Your task to perform on an android device: Show me the alarms in the clock app Image 0: 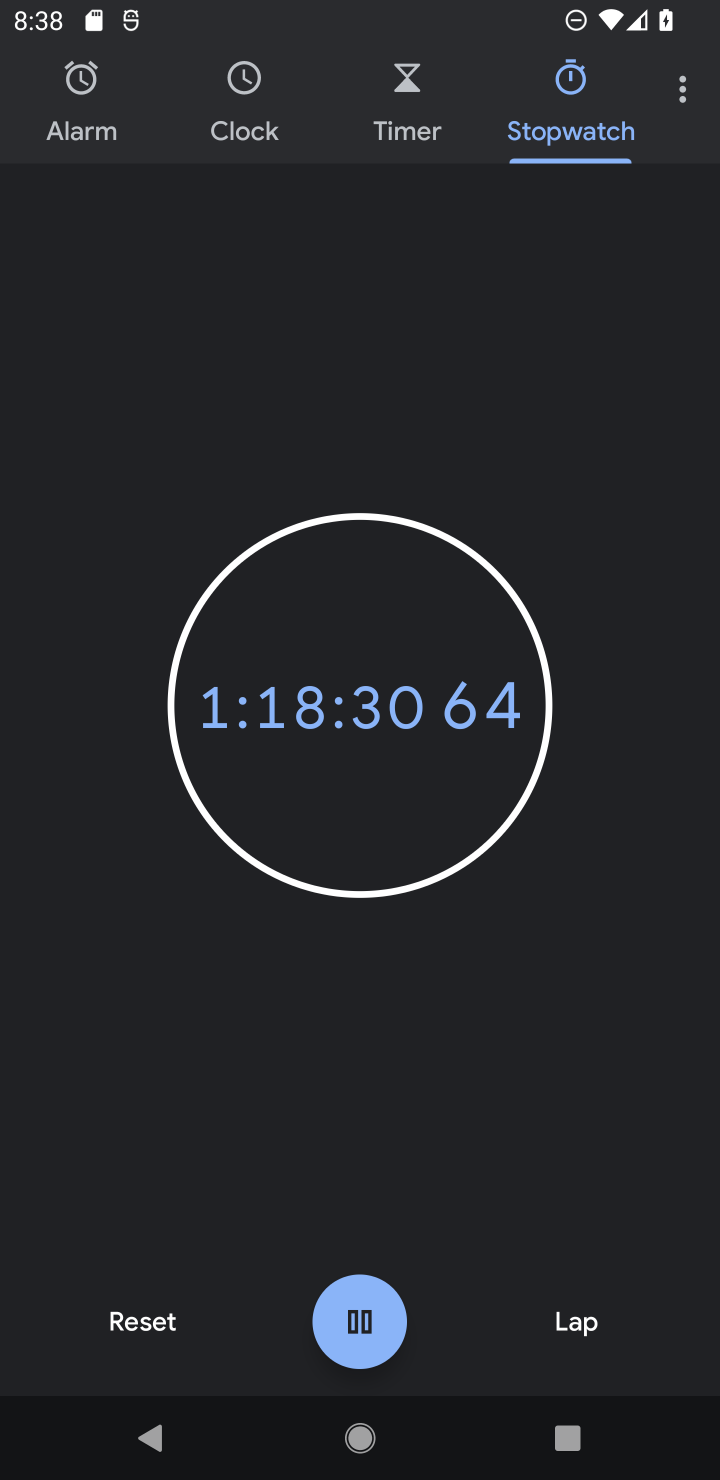
Step 0: press home button
Your task to perform on an android device: Show me the alarms in the clock app Image 1: 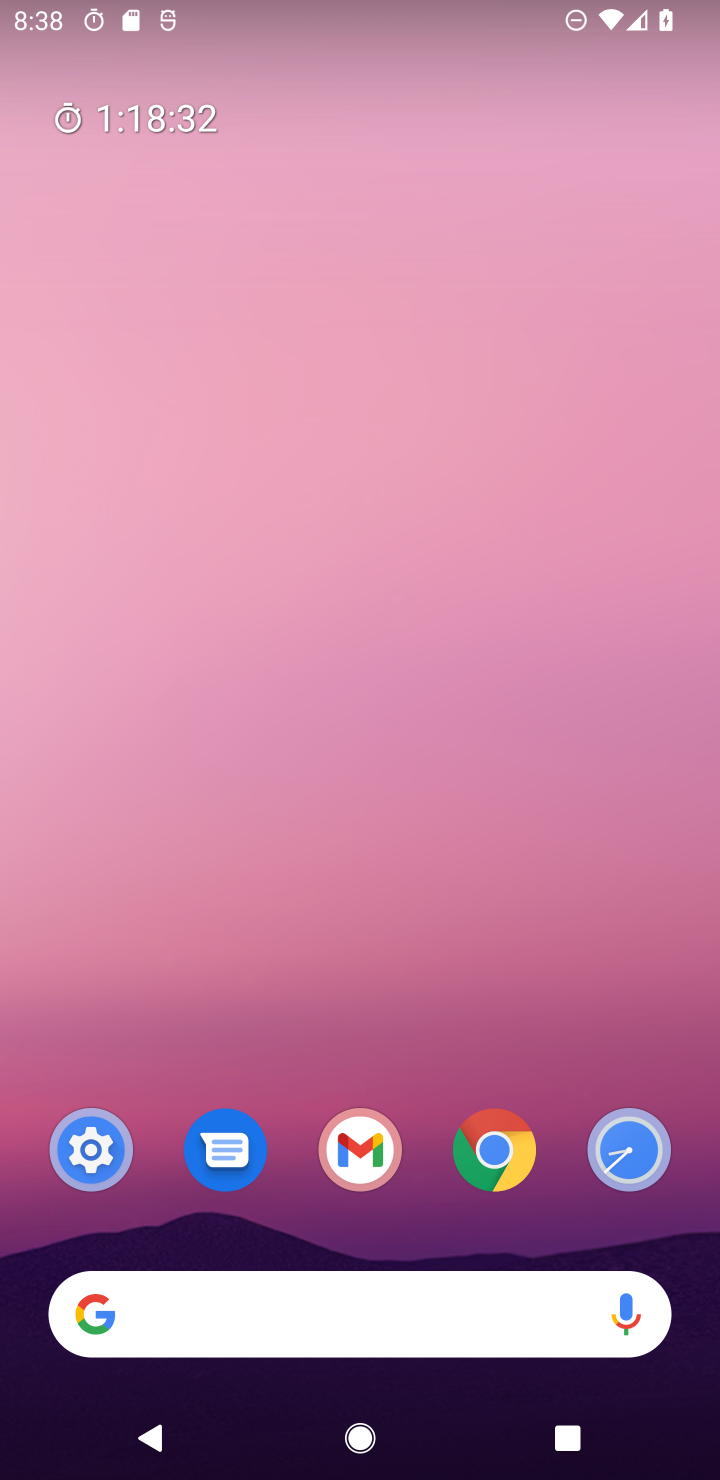
Step 1: drag from (380, 1318) to (577, 15)
Your task to perform on an android device: Show me the alarms in the clock app Image 2: 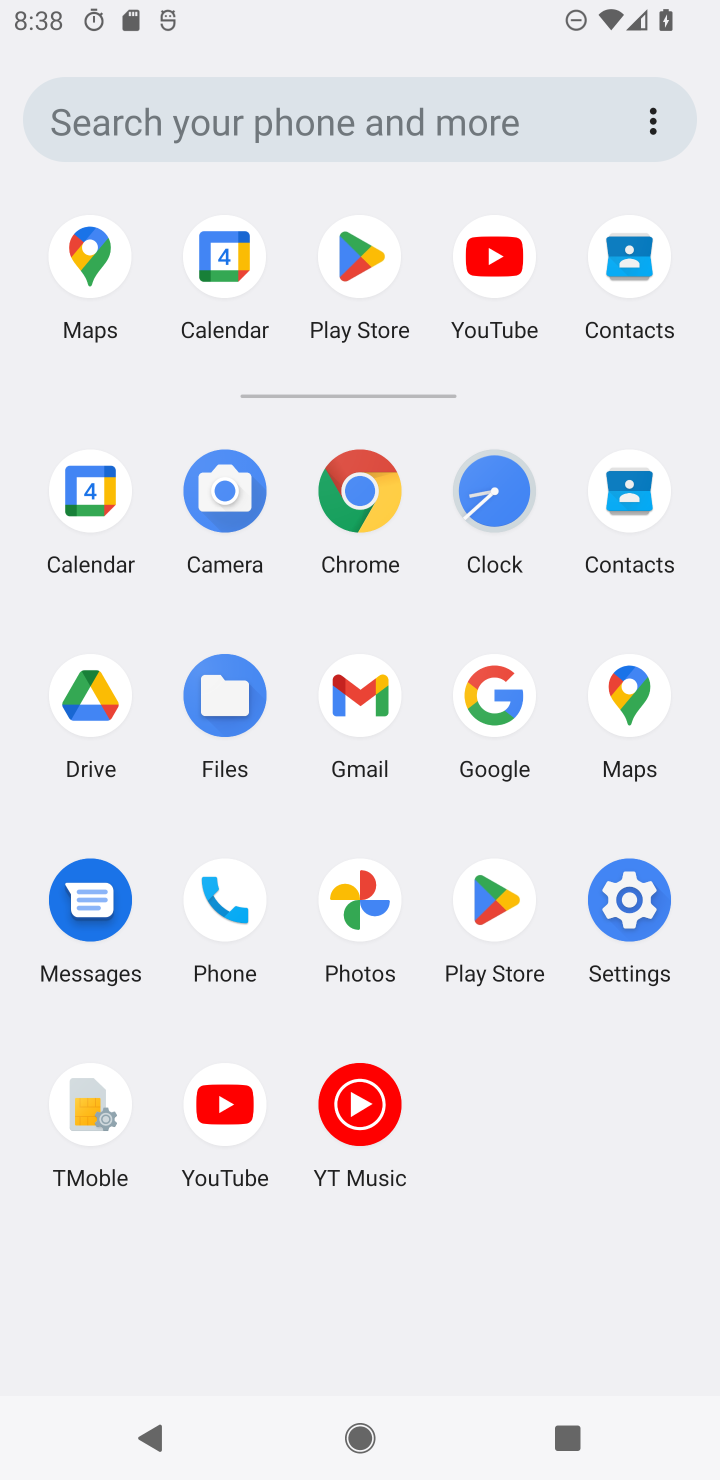
Step 2: click (507, 482)
Your task to perform on an android device: Show me the alarms in the clock app Image 3: 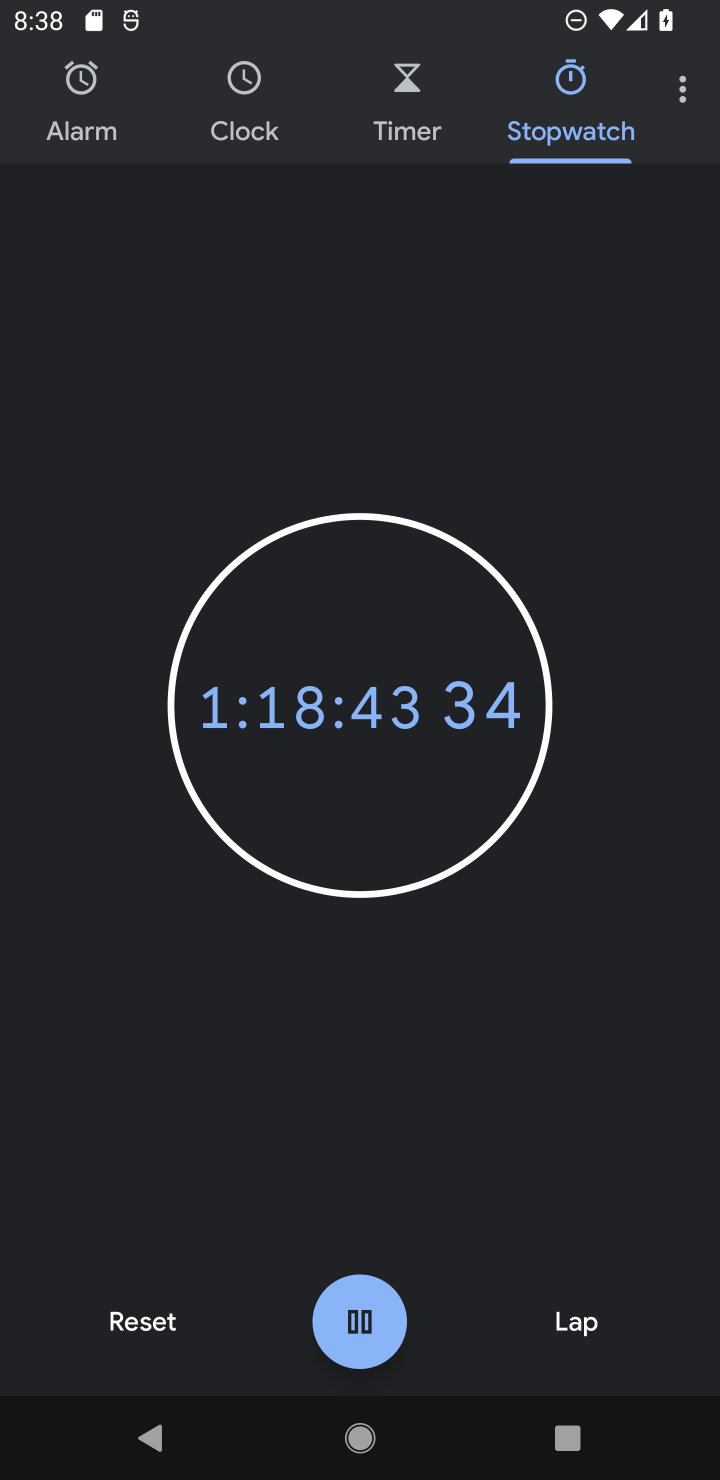
Step 3: click (97, 85)
Your task to perform on an android device: Show me the alarms in the clock app Image 4: 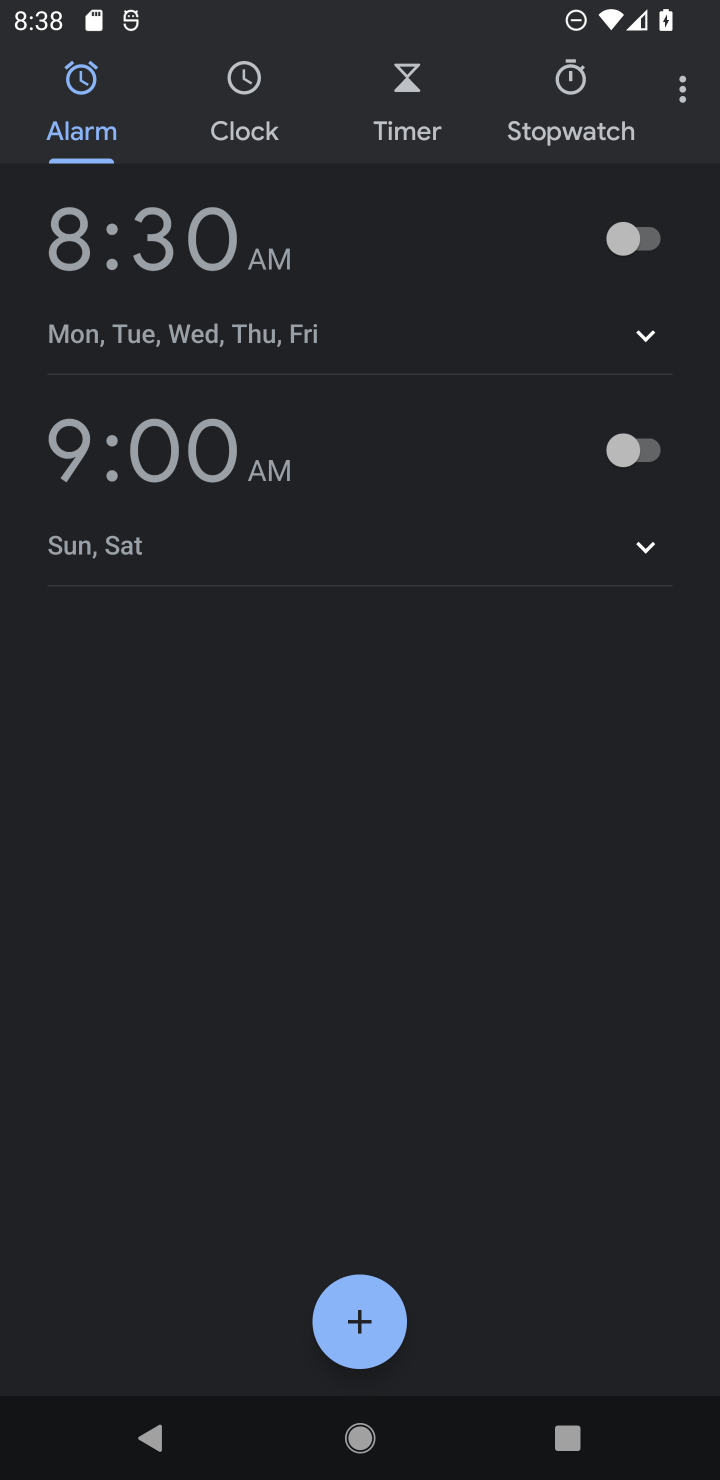
Step 4: click (636, 231)
Your task to perform on an android device: Show me the alarms in the clock app Image 5: 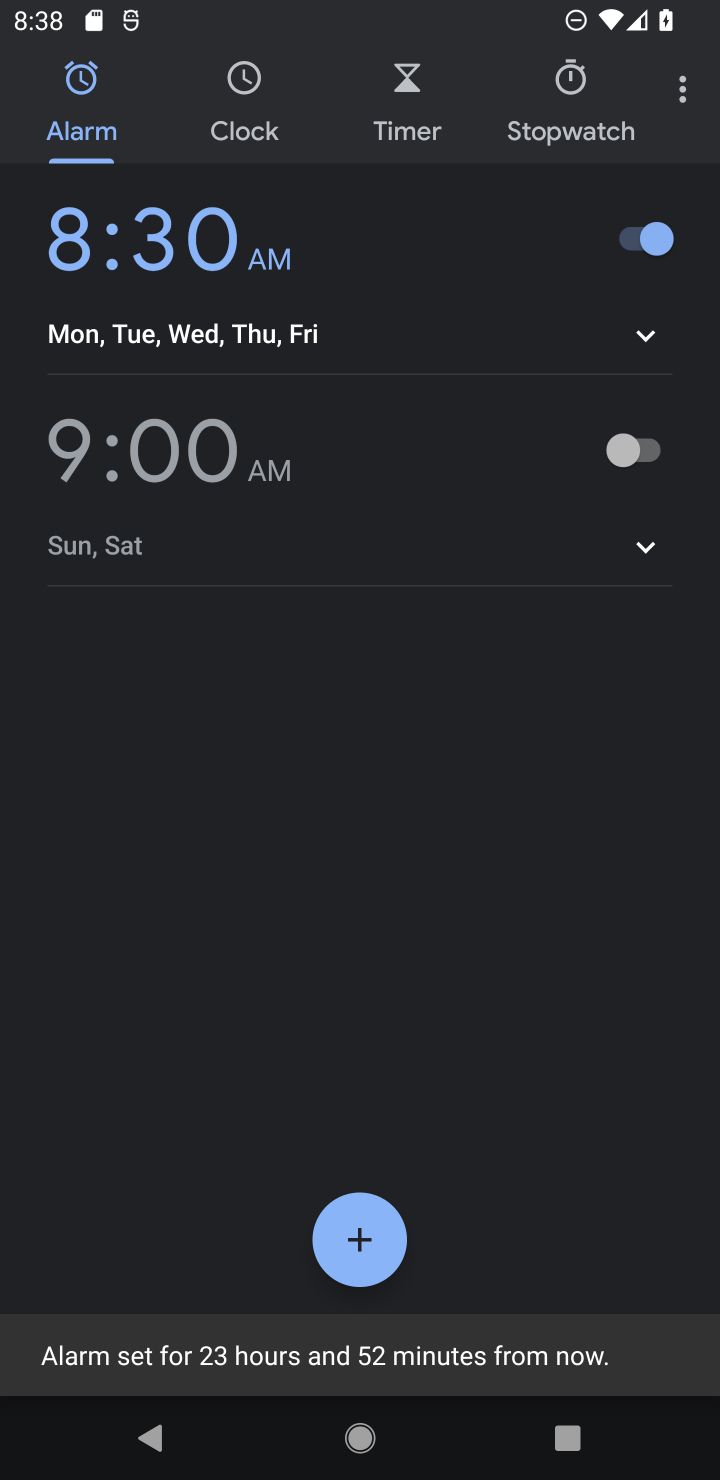
Step 5: task complete